Your task to perform on an android device: Open Chrome and go to settings Image 0: 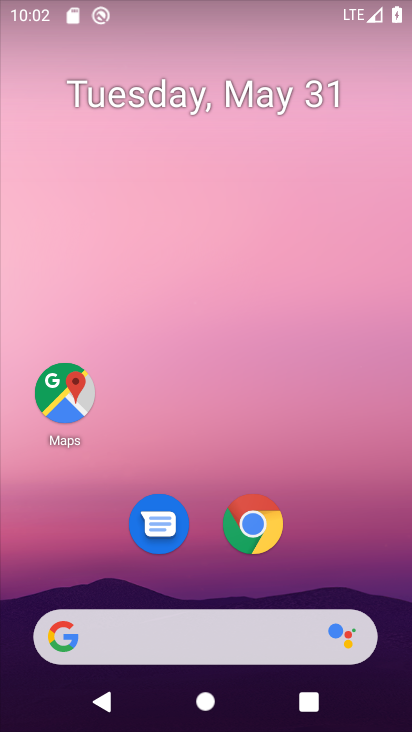
Step 0: click (267, 529)
Your task to perform on an android device: Open Chrome and go to settings Image 1: 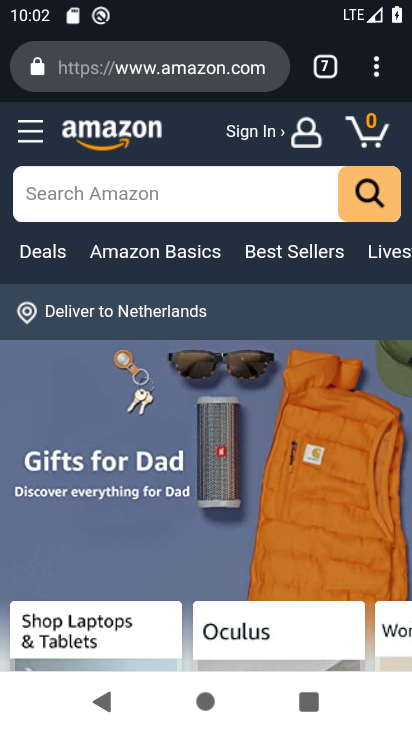
Step 1: click (370, 68)
Your task to perform on an android device: Open Chrome and go to settings Image 2: 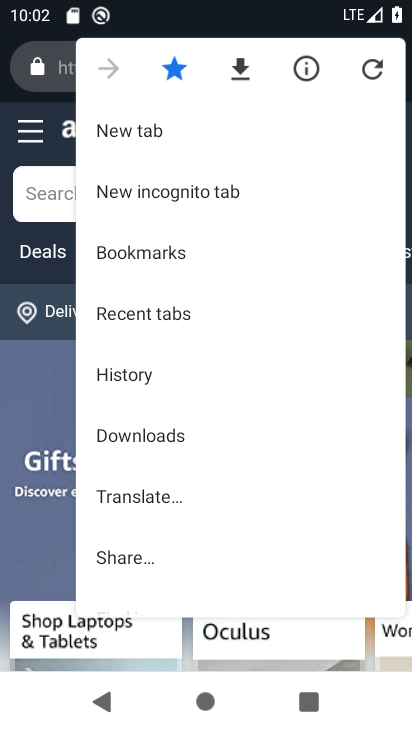
Step 2: drag from (238, 484) to (255, 231)
Your task to perform on an android device: Open Chrome and go to settings Image 3: 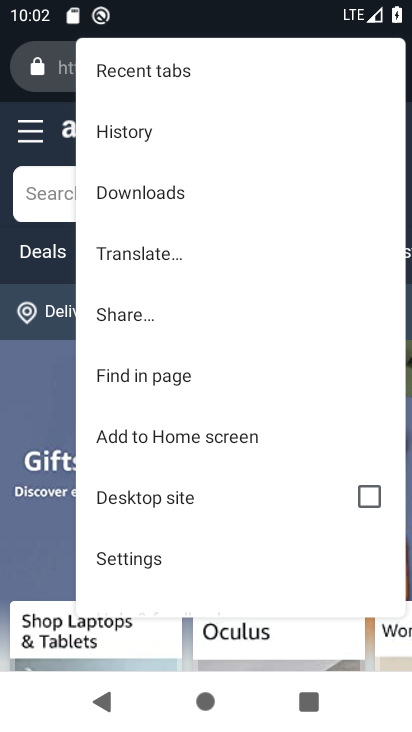
Step 3: click (187, 554)
Your task to perform on an android device: Open Chrome and go to settings Image 4: 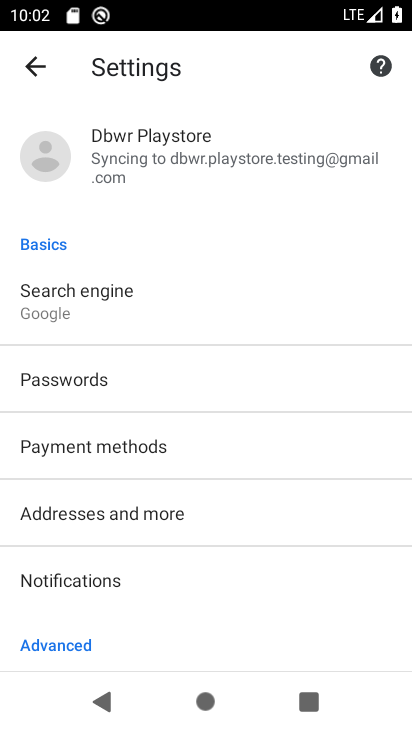
Step 4: task complete